Your task to perform on an android device: open app "YouTube Kids" (install if not already installed), go to login, and select forgot password Image 0: 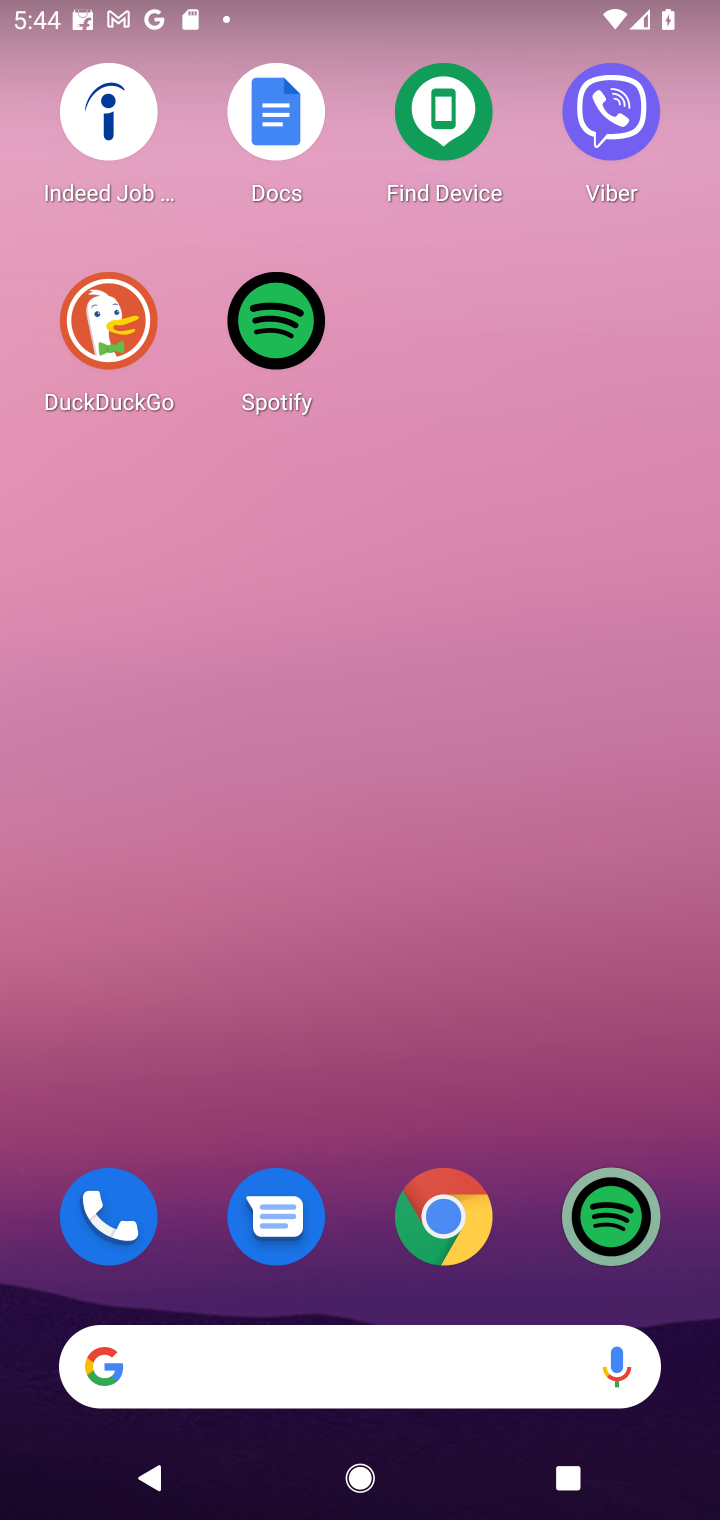
Step 0: drag from (429, 678) to (490, 269)
Your task to perform on an android device: open app "YouTube Kids" (install if not already installed), go to login, and select forgot password Image 1: 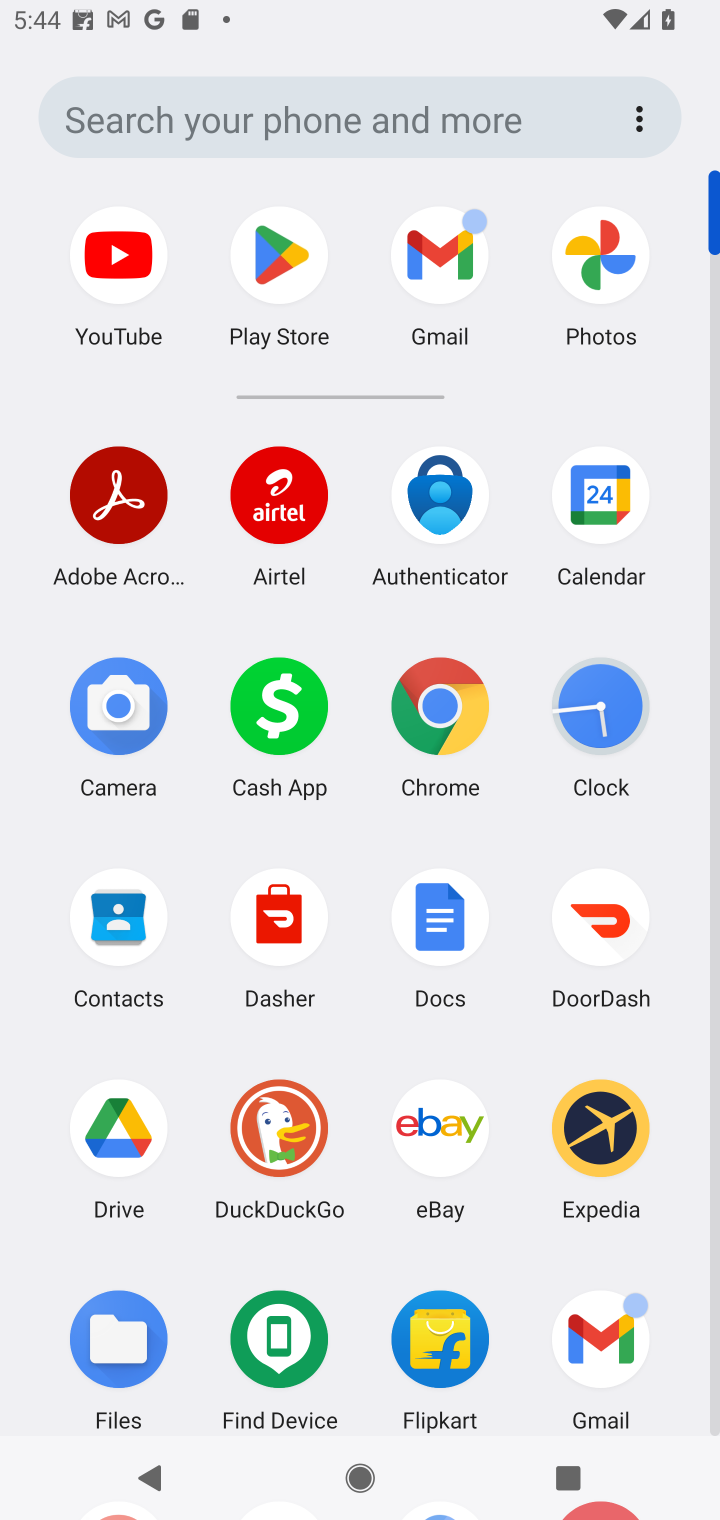
Step 1: click (300, 263)
Your task to perform on an android device: open app "YouTube Kids" (install if not already installed), go to login, and select forgot password Image 2: 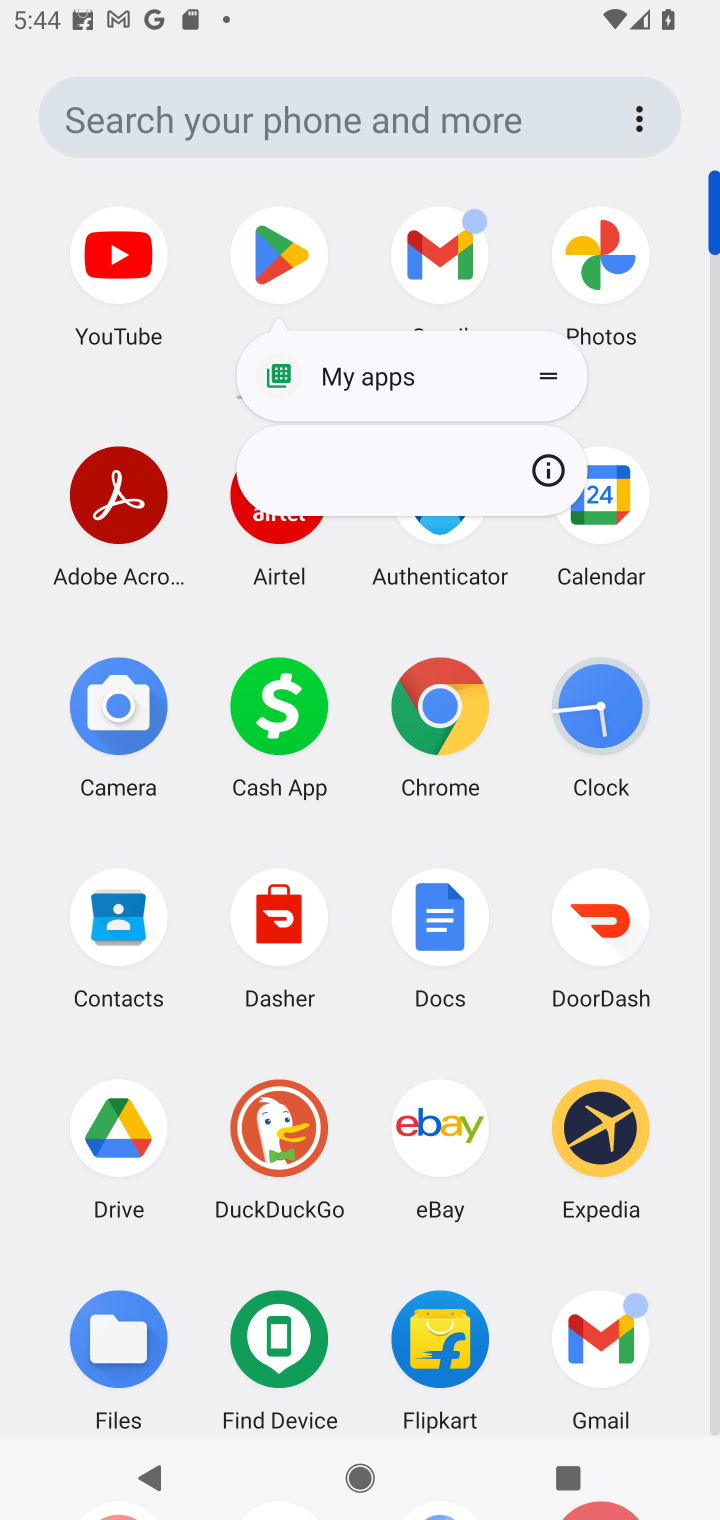
Step 2: click (300, 263)
Your task to perform on an android device: open app "YouTube Kids" (install if not already installed), go to login, and select forgot password Image 3: 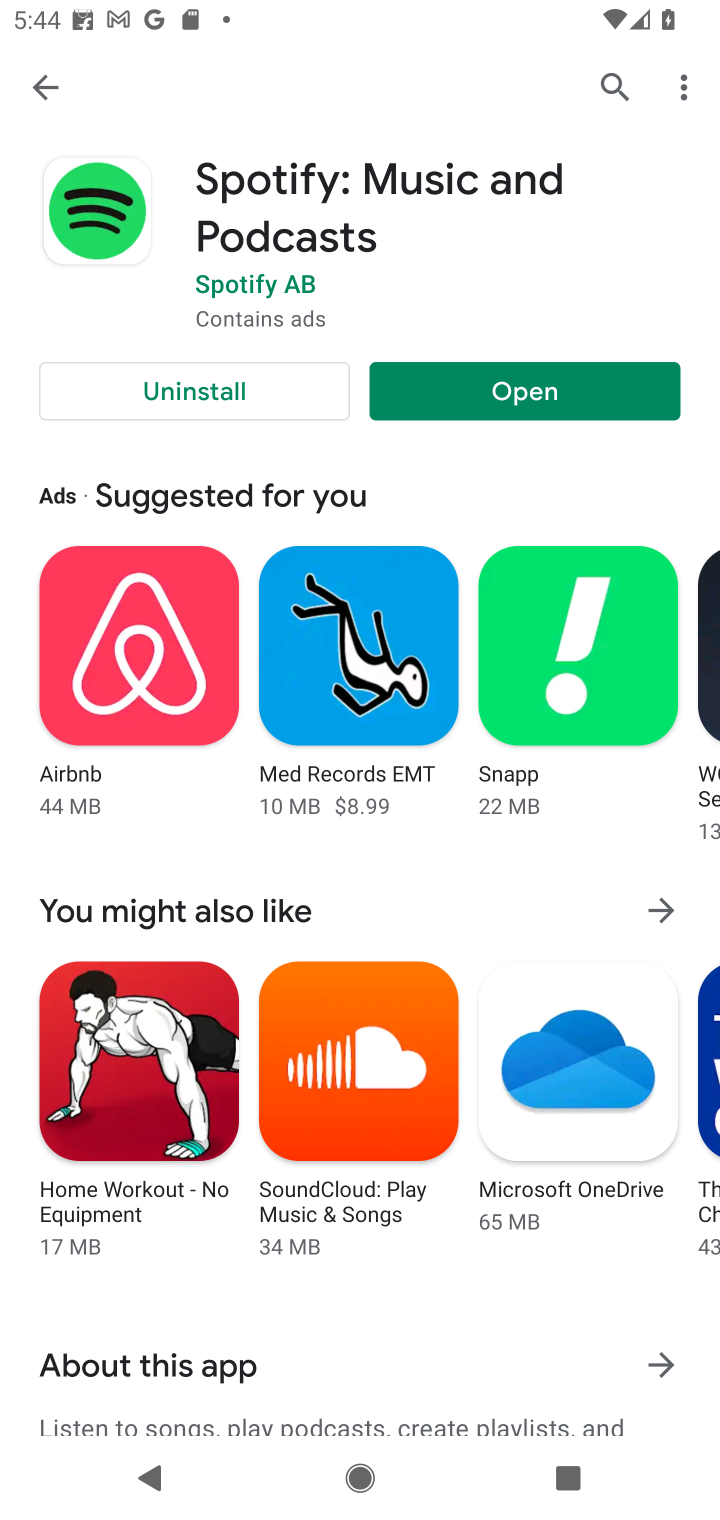
Step 3: click (600, 85)
Your task to perform on an android device: open app "YouTube Kids" (install if not already installed), go to login, and select forgot password Image 4: 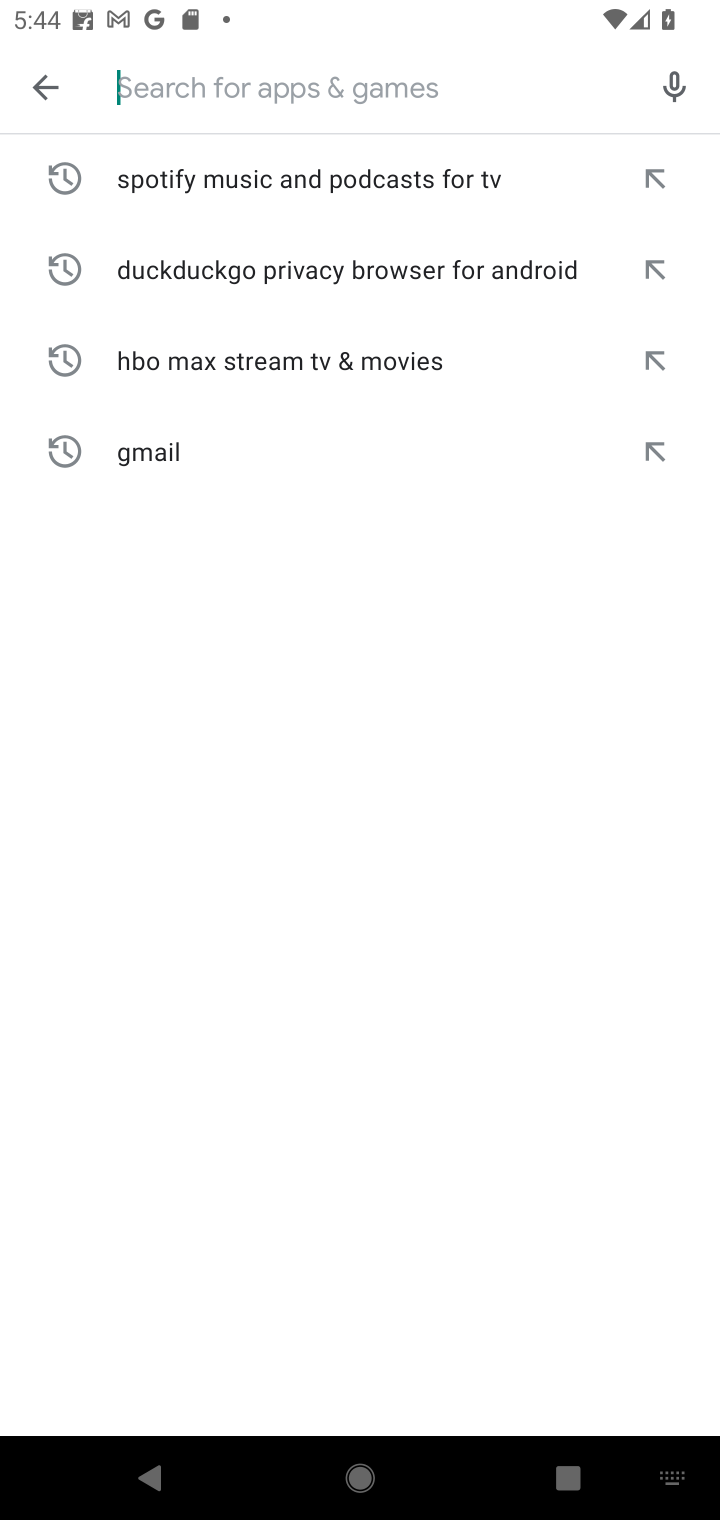
Step 4: type "YouTube Kids"
Your task to perform on an android device: open app "YouTube Kids" (install if not already installed), go to login, and select forgot password Image 5: 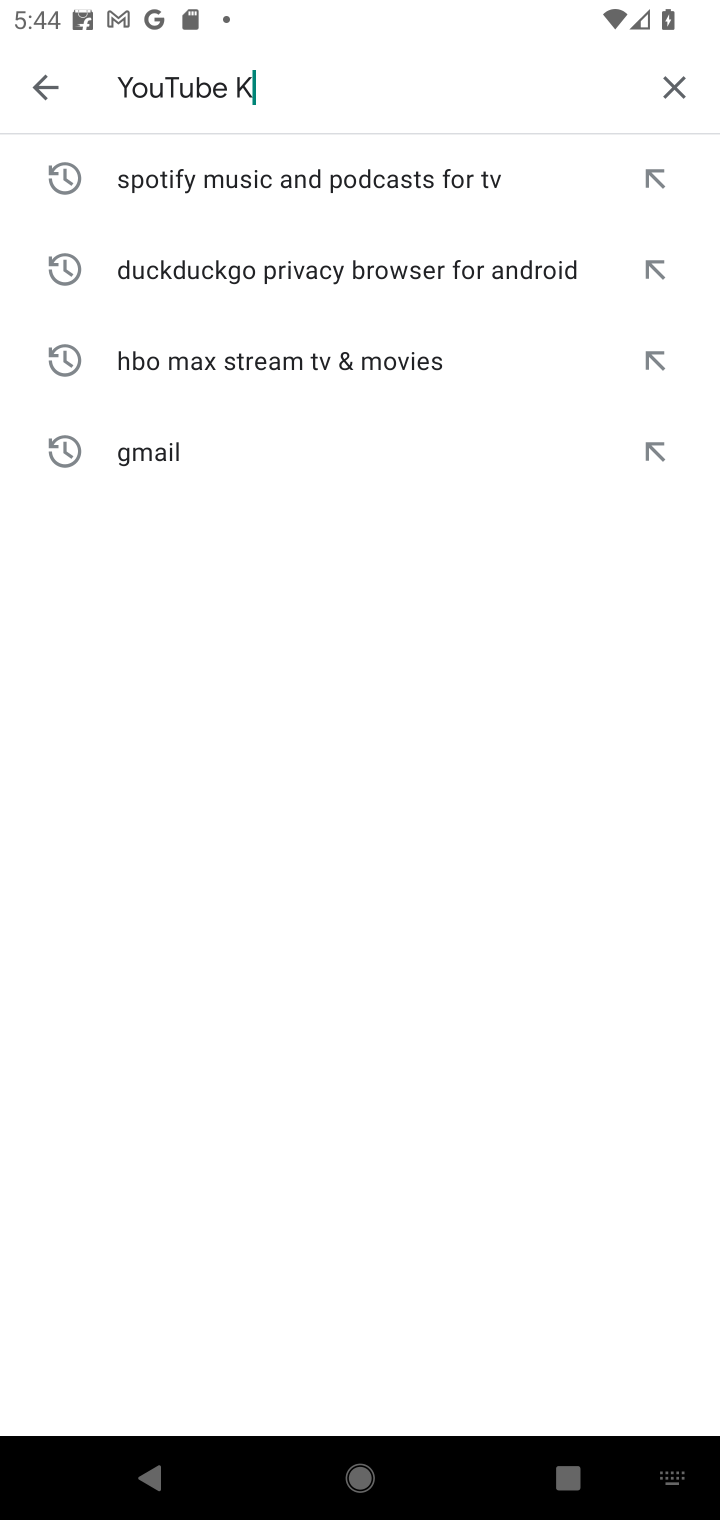
Step 5: type ""
Your task to perform on an android device: open app "YouTube Kids" (install if not already installed), go to login, and select forgot password Image 6: 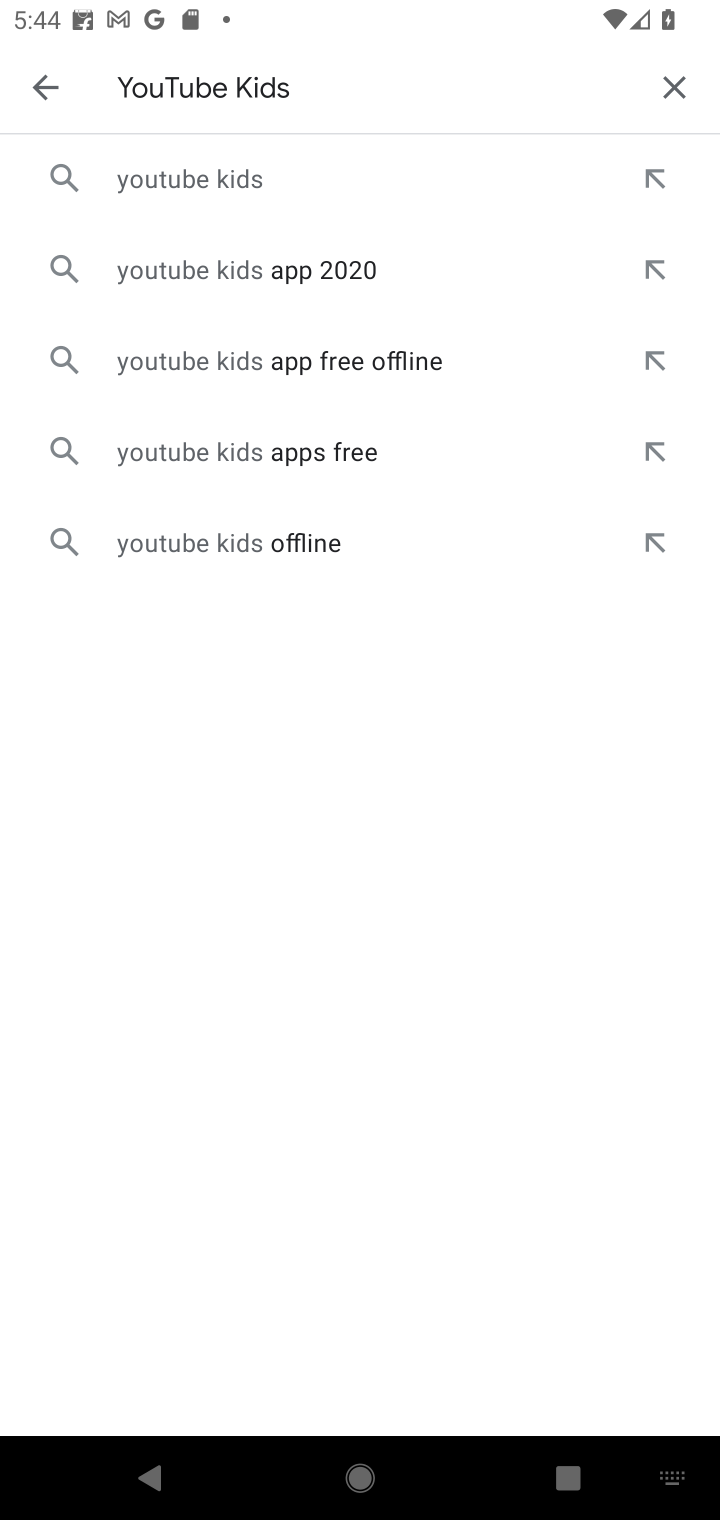
Step 6: click (249, 155)
Your task to perform on an android device: open app "YouTube Kids" (install if not already installed), go to login, and select forgot password Image 7: 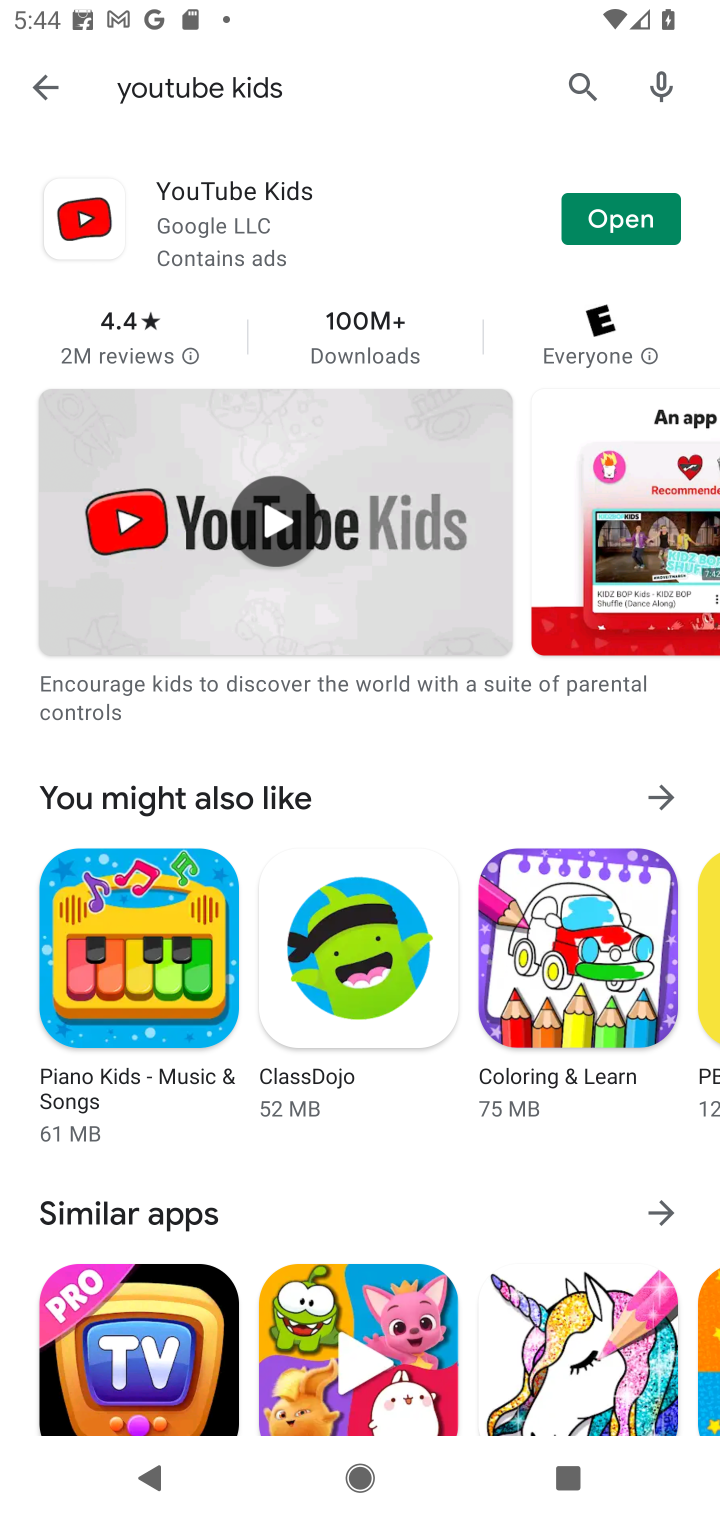
Step 7: click (573, 229)
Your task to perform on an android device: open app "YouTube Kids" (install if not already installed), go to login, and select forgot password Image 8: 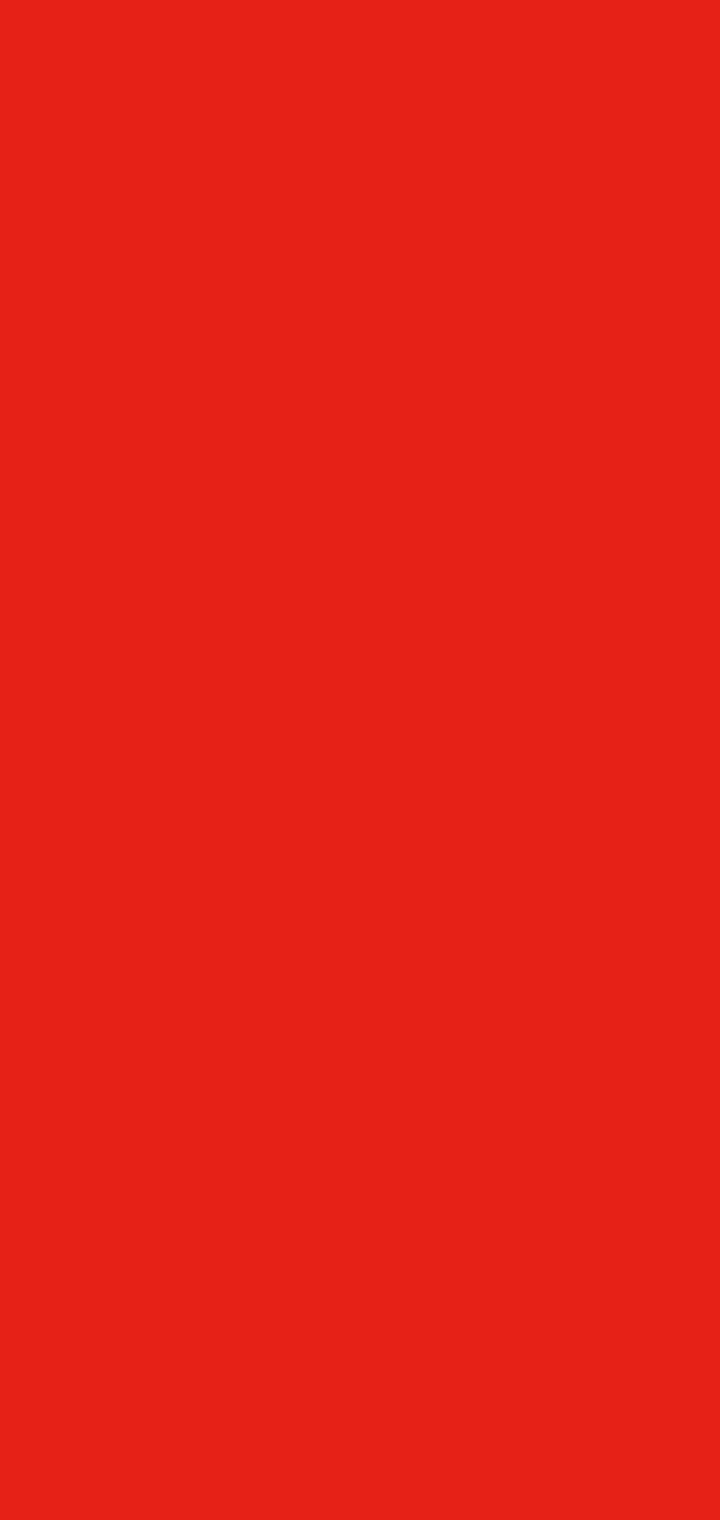
Step 8: task complete